Your task to perform on an android device: toggle notifications settings in the gmail app Image 0: 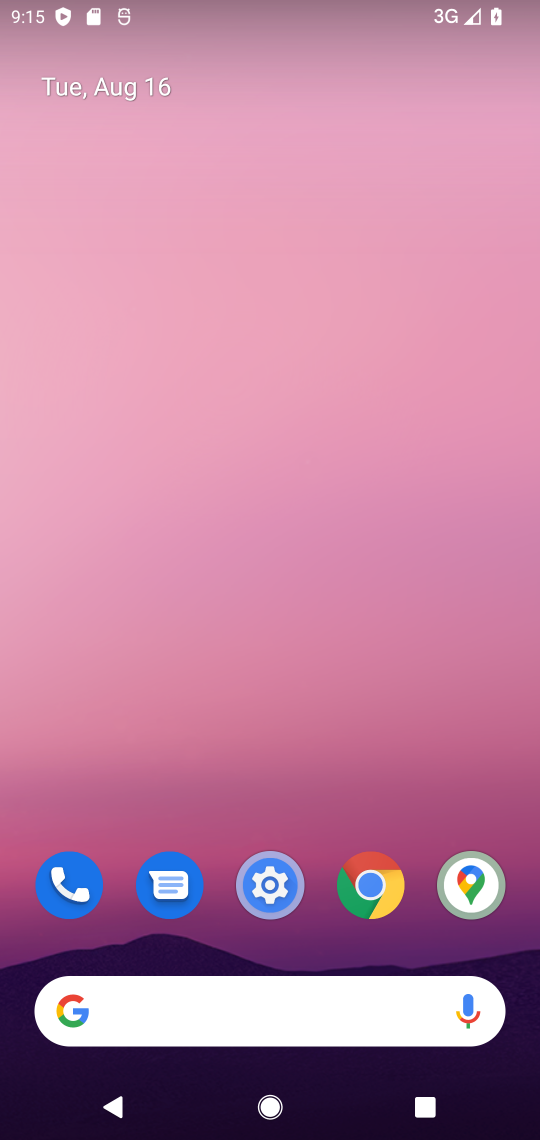
Step 0: drag from (286, 631) to (293, 82)
Your task to perform on an android device: toggle notifications settings in the gmail app Image 1: 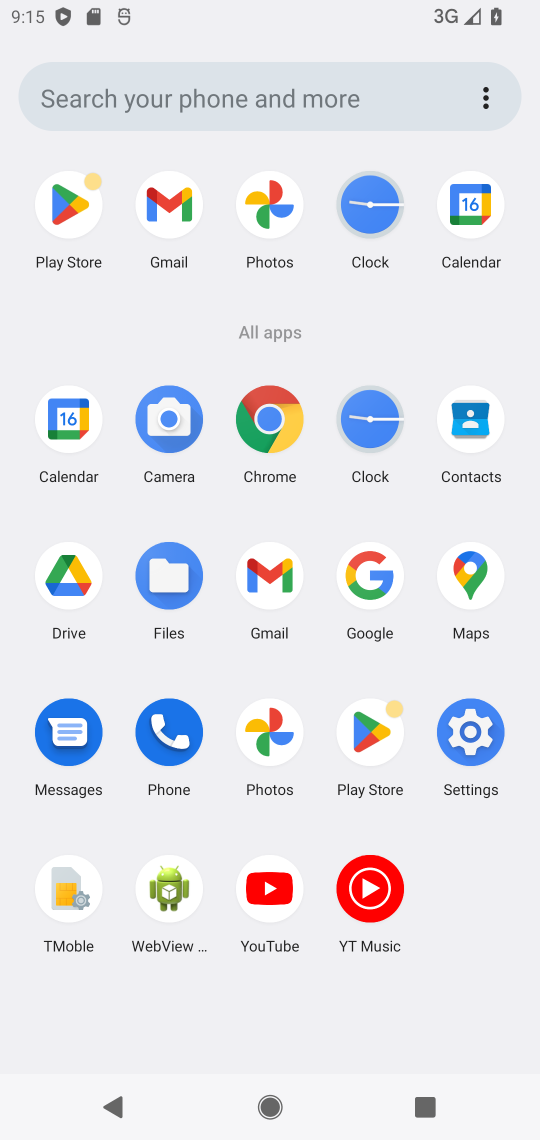
Step 1: click (178, 215)
Your task to perform on an android device: toggle notifications settings in the gmail app Image 2: 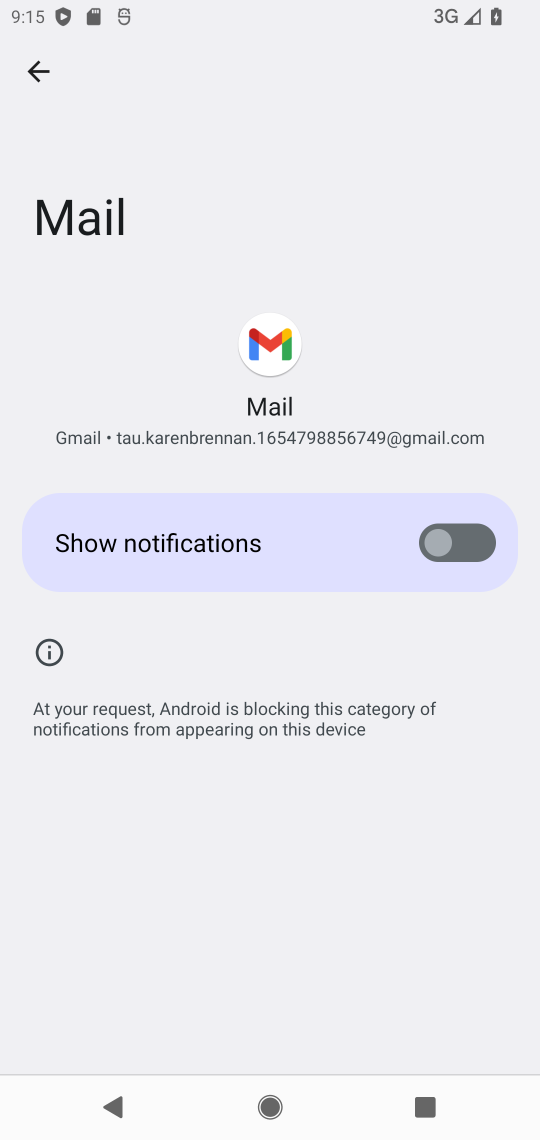
Step 2: click (475, 539)
Your task to perform on an android device: toggle notifications settings in the gmail app Image 3: 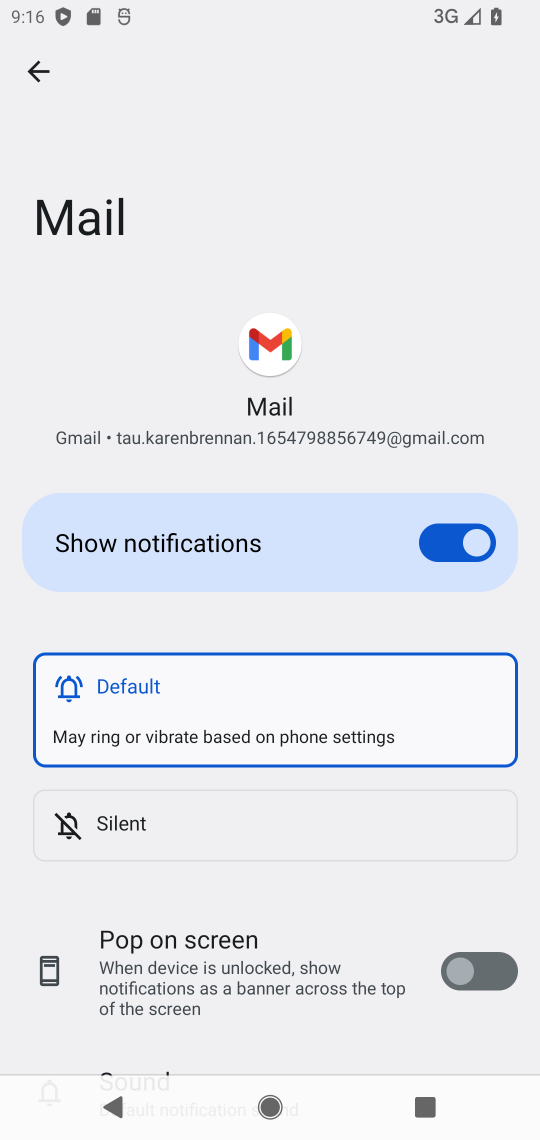
Step 3: task complete